Your task to perform on an android device: change keyboard looks Image 0: 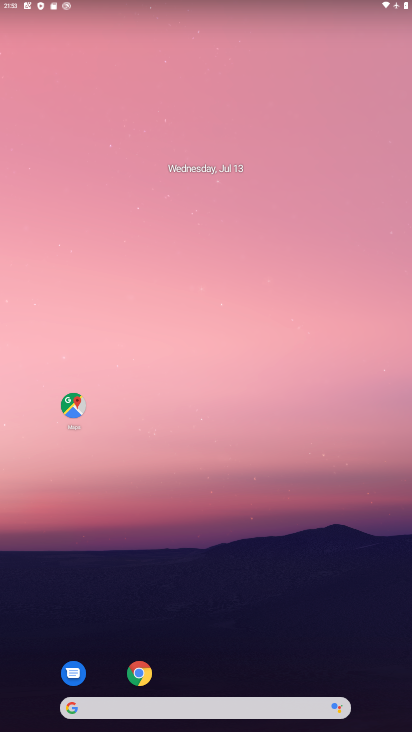
Step 0: drag from (187, 677) to (193, 201)
Your task to perform on an android device: change keyboard looks Image 1: 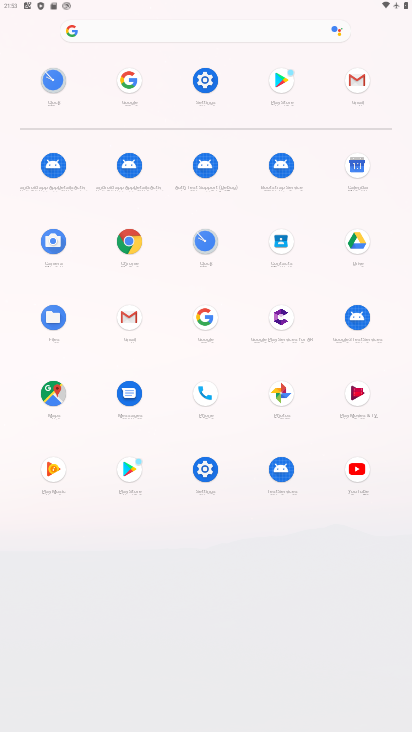
Step 1: click (207, 76)
Your task to perform on an android device: change keyboard looks Image 2: 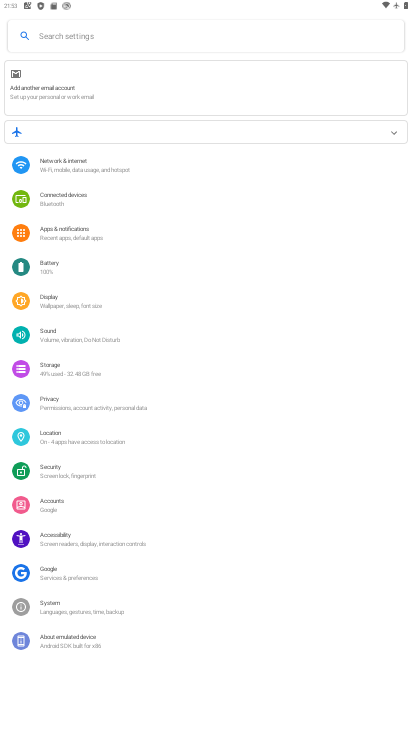
Step 2: click (65, 601)
Your task to perform on an android device: change keyboard looks Image 3: 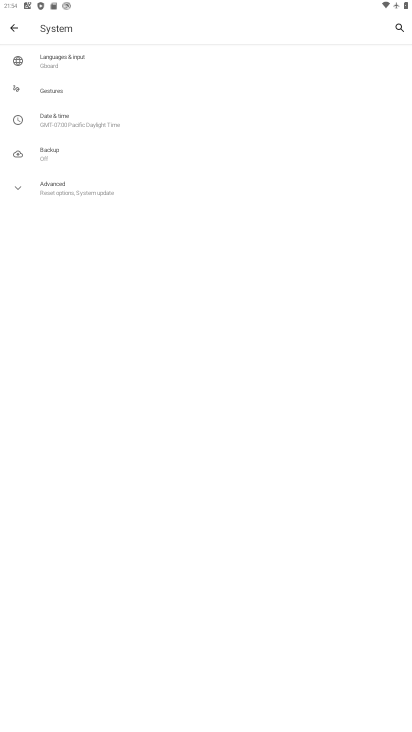
Step 3: click (79, 67)
Your task to perform on an android device: change keyboard looks Image 4: 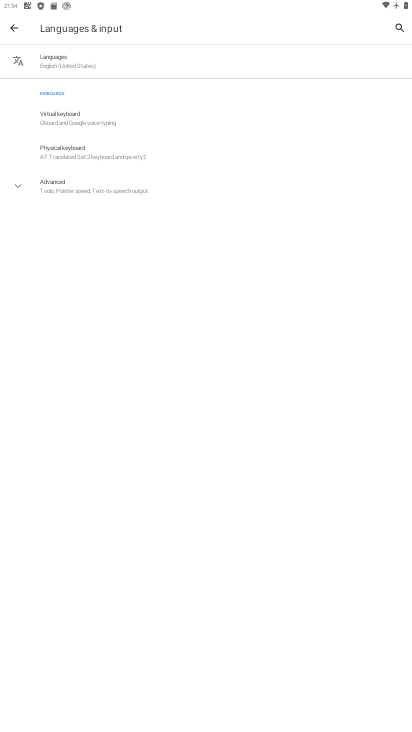
Step 4: click (88, 115)
Your task to perform on an android device: change keyboard looks Image 5: 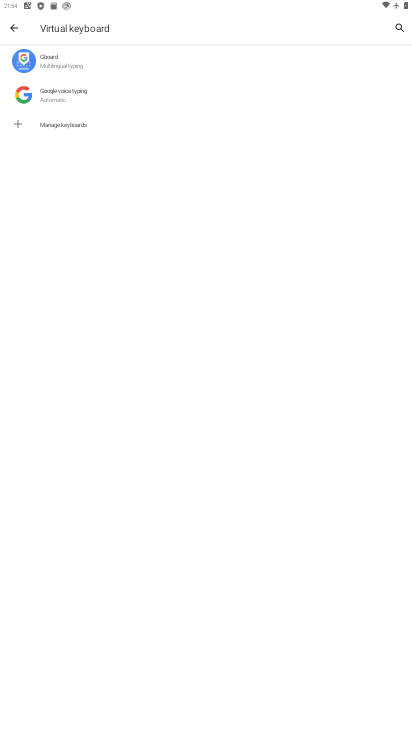
Step 5: click (59, 62)
Your task to perform on an android device: change keyboard looks Image 6: 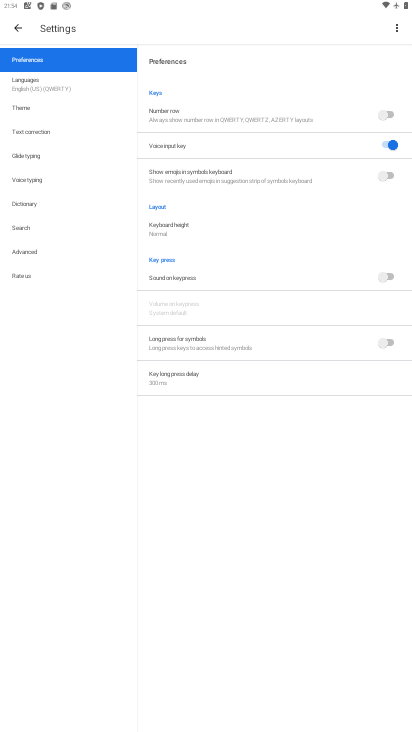
Step 6: click (55, 109)
Your task to perform on an android device: change keyboard looks Image 7: 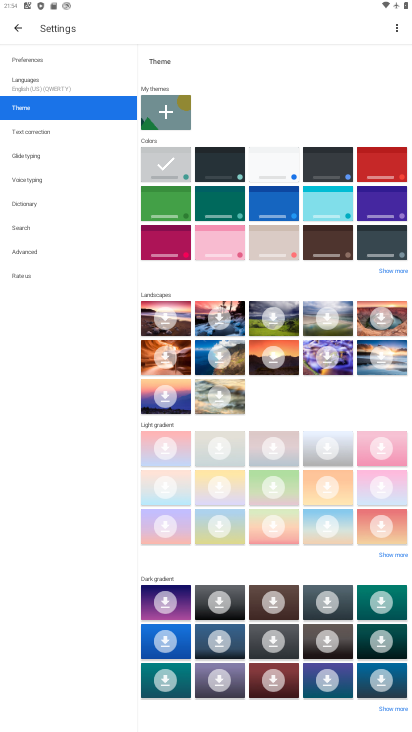
Step 7: click (179, 204)
Your task to perform on an android device: change keyboard looks Image 8: 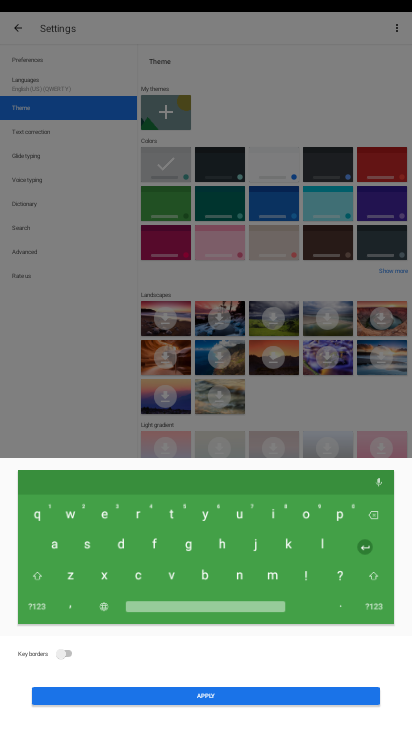
Step 8: click (206, 688)
Your task to perform on an android device: change keyboard looks Image 9: 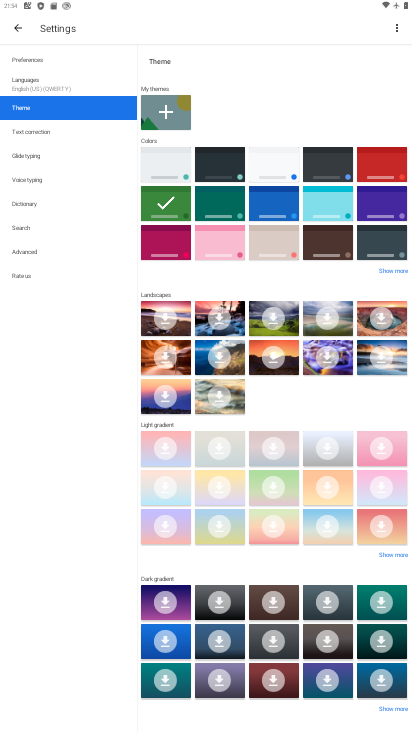
Step 9: task complete